Your task to perform on an android device: toggle javascript in the chrome app Image 0: 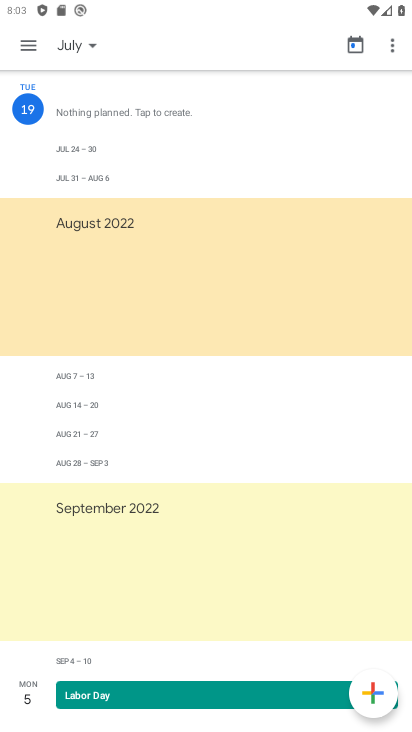
Step 0: press home button
Your task to perform on an android device: toggle javascript in the chrome app Image 1: 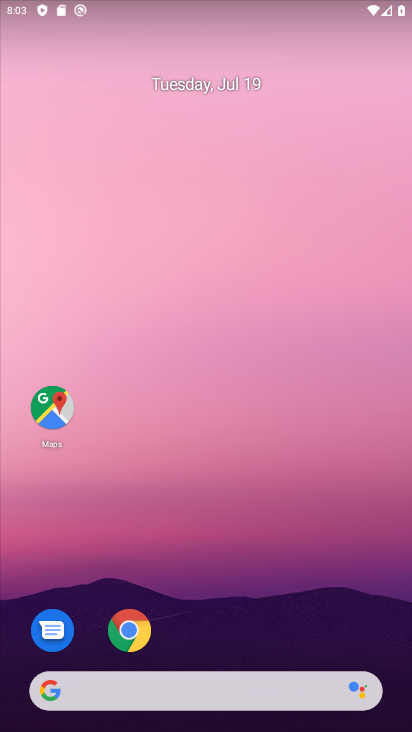
Step 1: drag from (212, 686) to (209, 285)
Your task to perform on an android device: toggle javascript in the chrome app Image 2: 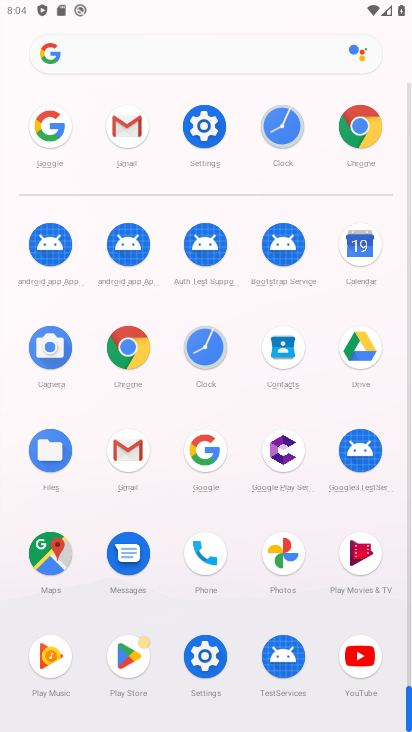
Step 2: click (133, 359)
Your task to perform on an android device: toggle javascript in the chrome app Image 3: 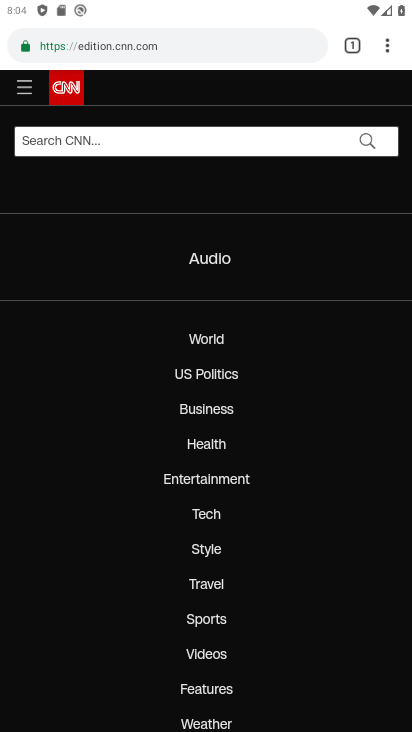
Step 3: click (391, 48)
Your task to perform on an android device: toggle javascript in the chrome app Image 4: 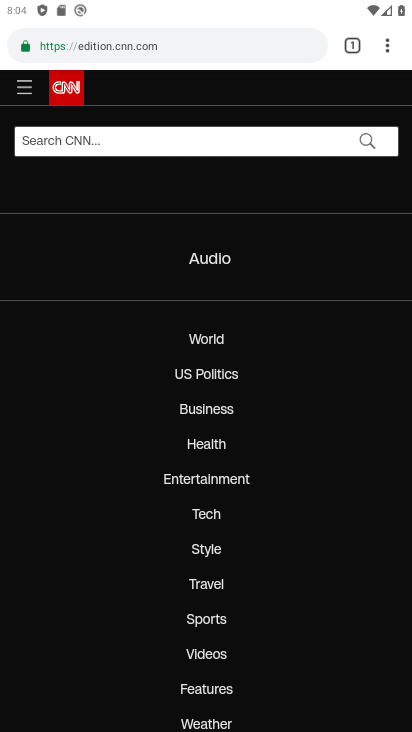
Step 4: click (390, 47)
Your task to perform on an android device: toggle javascript in the chrome app Image 5: 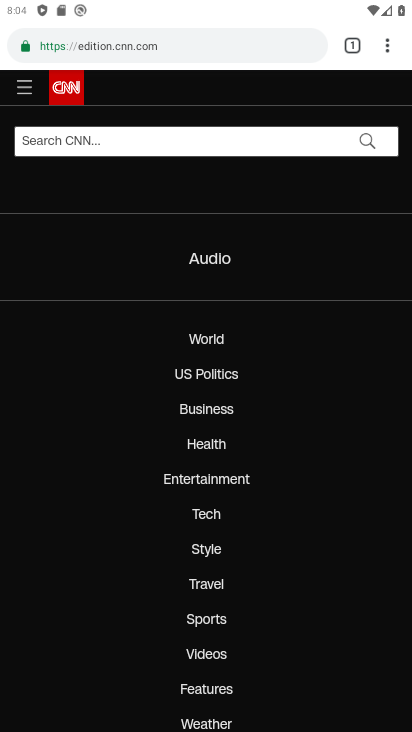
Step 5: click (387, 53)
Your task to perform on an android device: toggle javascript in the chrome app Image 6: 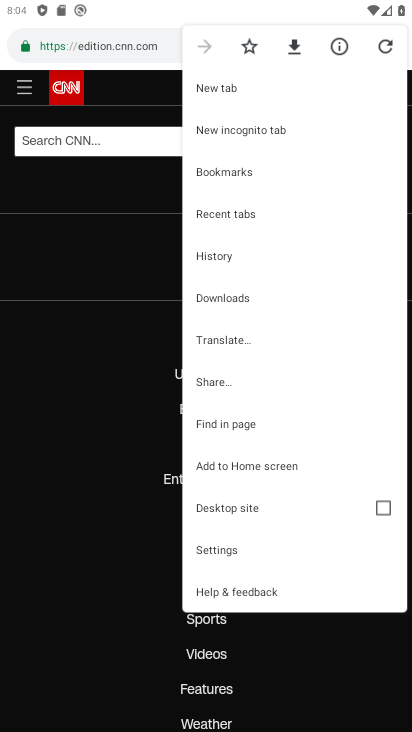
Step 6: drag from (253, 513) to (282, 360)
Your task to perform on an android device: toggle javascript in the chrome app Image 7: 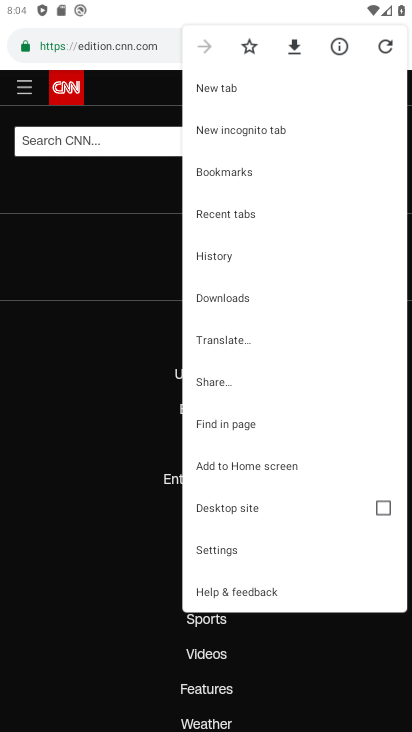
Step 7: click (218, 556)
Your task to perform on an android device: toggle javascript in the chrome app Image 8: 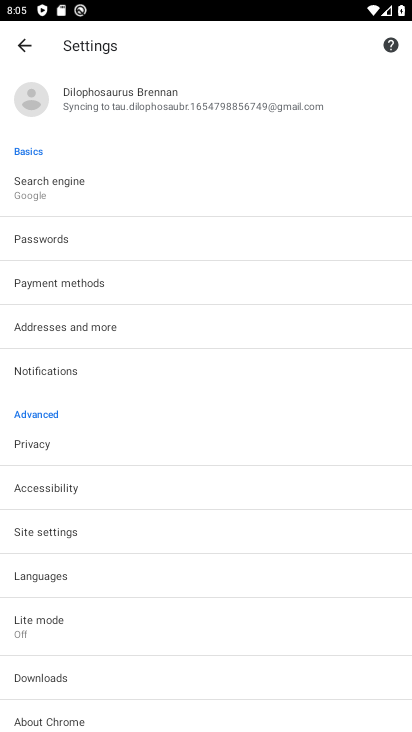
Step 8: click (83, 538)
Your task to perform on an android device: toggle javascript in the chrome app Image 9: 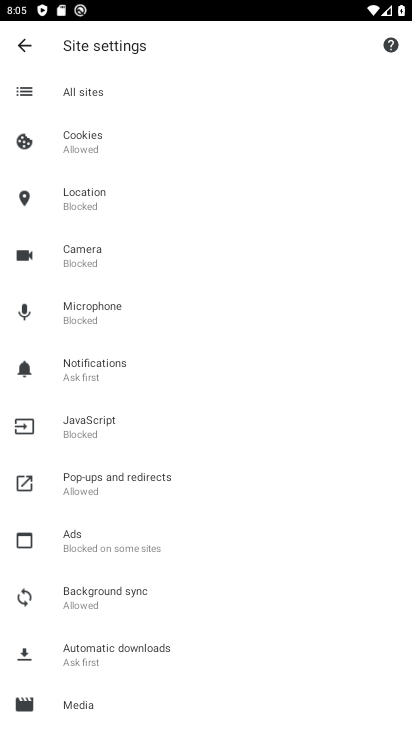
Step 9: click (105, 427)
Your task to perform on an android device: toggle javascript in the chrome app Image 10: 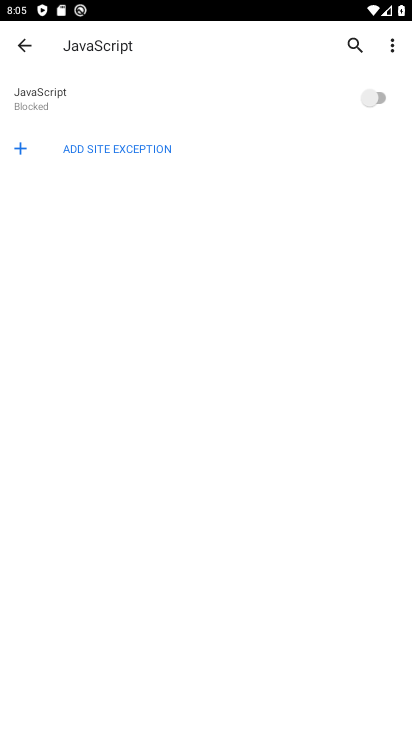
Step 10: click (388, 94)
Your task to perform on an android device: toggle javascript in the chrome app Image 11: 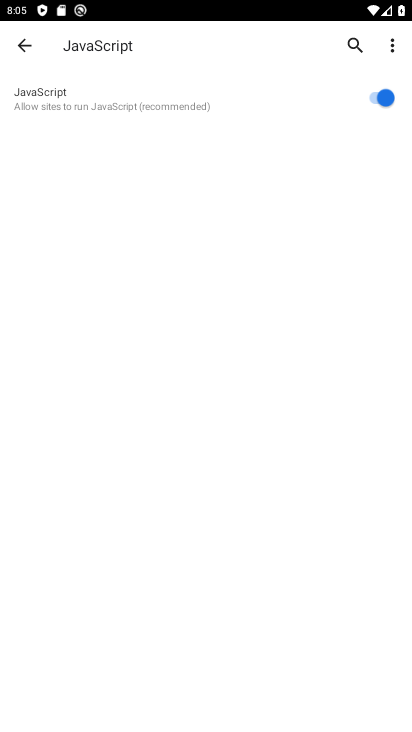
Step 11: task complete